Your task to perform on an android device: check the backup settings in the google photos Image 0: 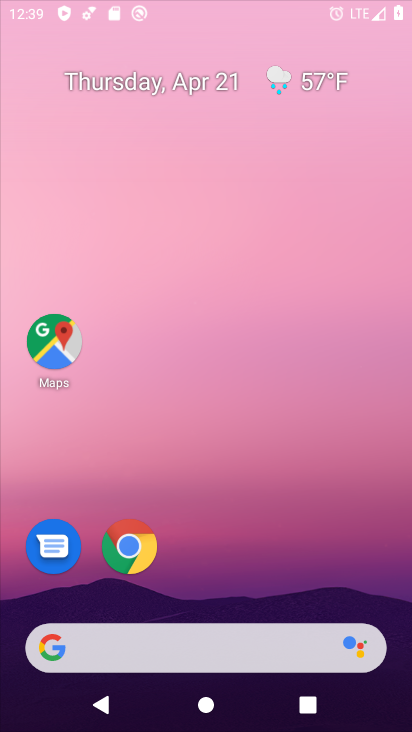
Step 0: click (307, 78)
Your task to perform on an android device: check the backup settings in the google photos Image 1: 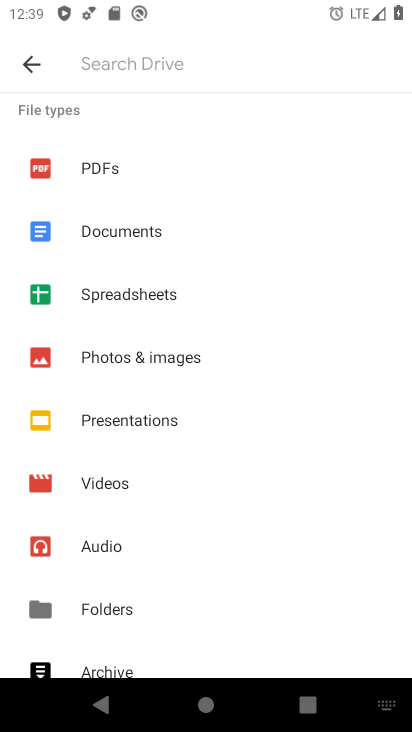
Step 1: drag from (163, 527) to (149, 182)
Your task to perform on an android device: check the backup settings in the google photos Image 2: 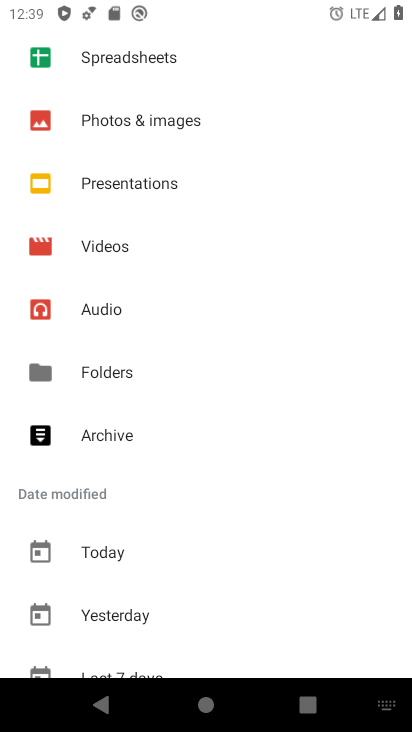
Step 2: drag from (121, 67) to (148, 594)
Your task to perform on an android device: check the backup settings in the google photos Image 3: 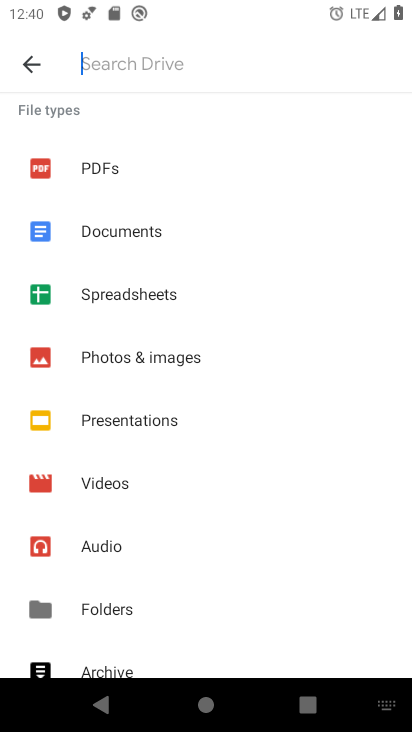
Step 3: press home button
Your task to perform on an android device: check the backup settings in the google photos Image 4: 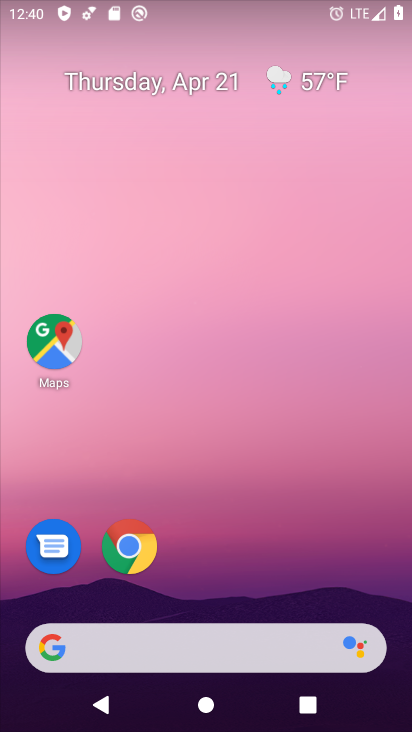
Step 4: drag from (260, 581) to (214, 0)
Your task to perform on an android device: check the backup settings in the google photos Image 5: 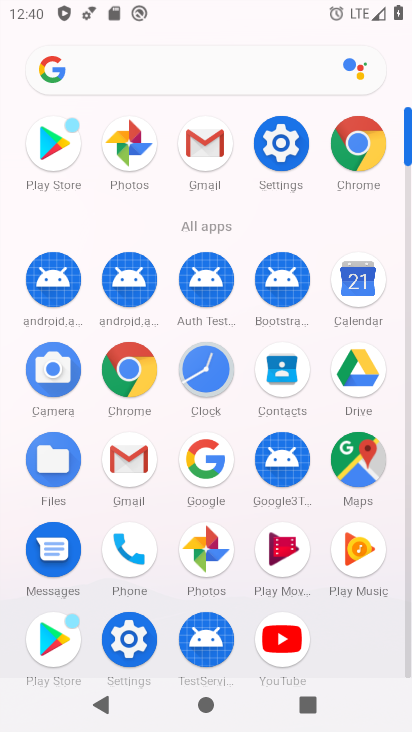
Step 5: click (125, 156)
Your task to perform on an android device: check the backup settings in the google photos Image 6: 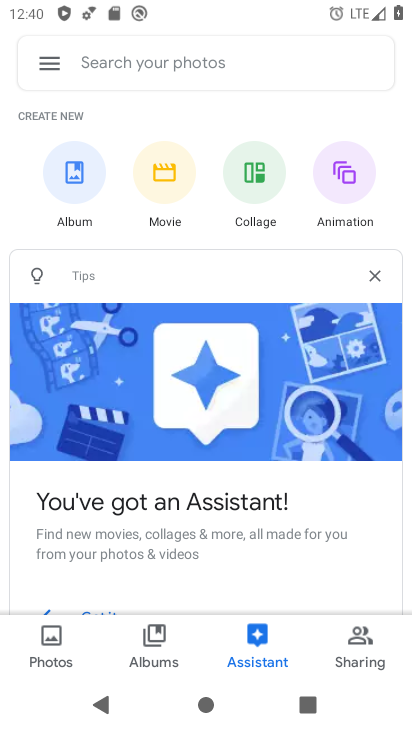
Step 6: click (39, 61)
Your task to perform on an android device: check the backup settings in the google photos Image 7: 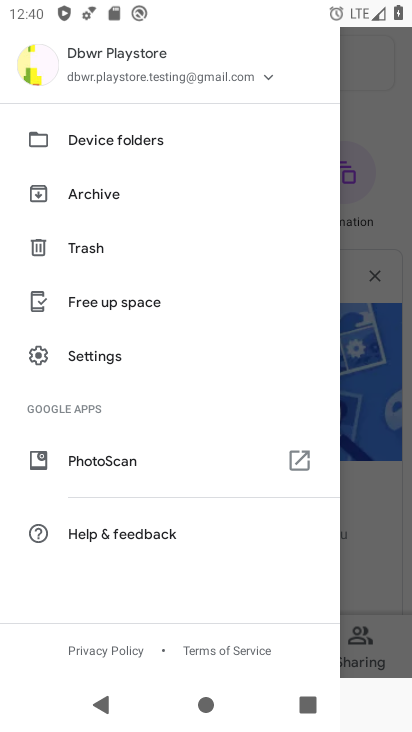
Step 7: click (95, 363)
Your task to perform on an android device: check the backup settings in the google photos Image 8: 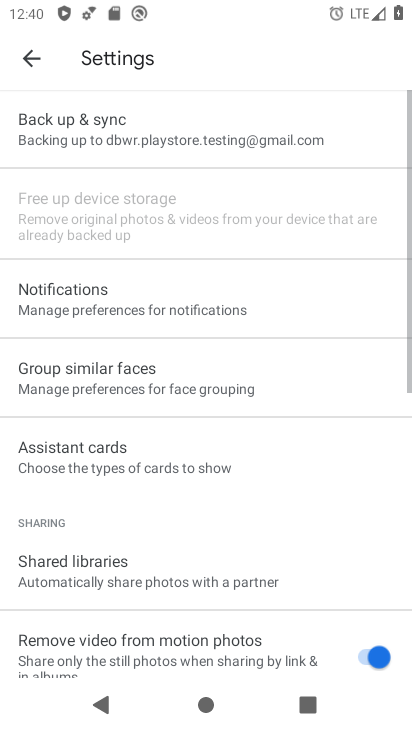
Step 8: click (106, 135)
Your task to perform on an android device: check the backup settings in the google photos Image 9: 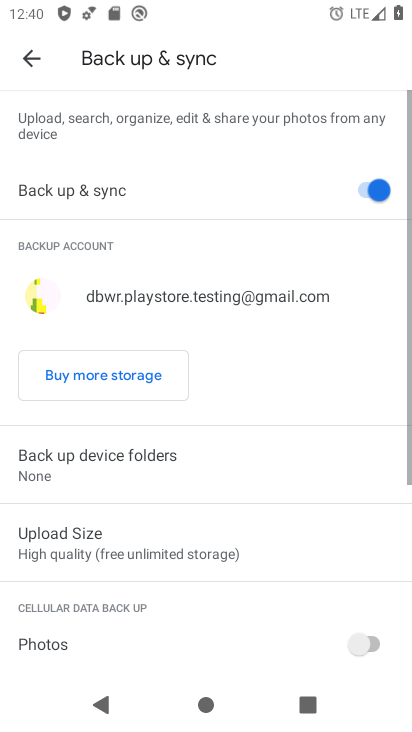
Step 9: task complete